Your task to perform on an android device: open wifi settings Image 0: 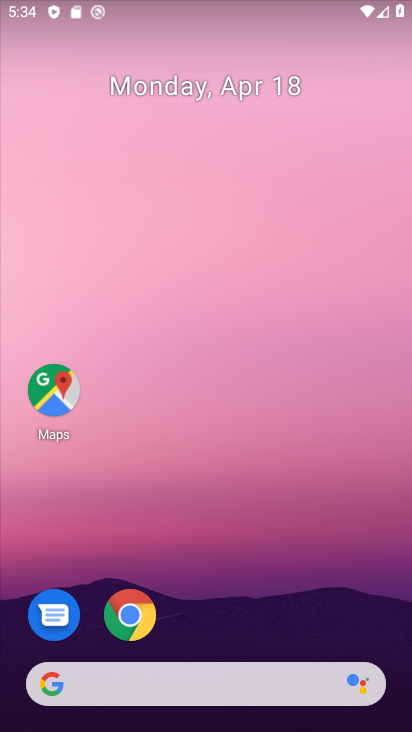
Step 0: drag from (182, 12) to (208, 664)
Your task to perform on an android device: open wifi settings Image 1: 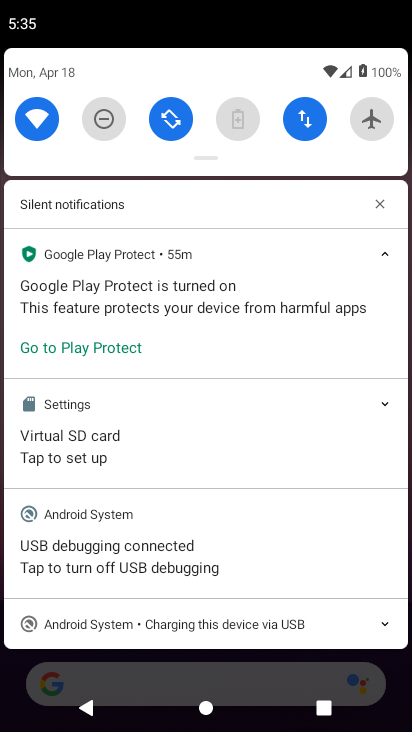
Step 1: click (21, 110)
Your task to perform on an android device: open wifi settings Image 2: 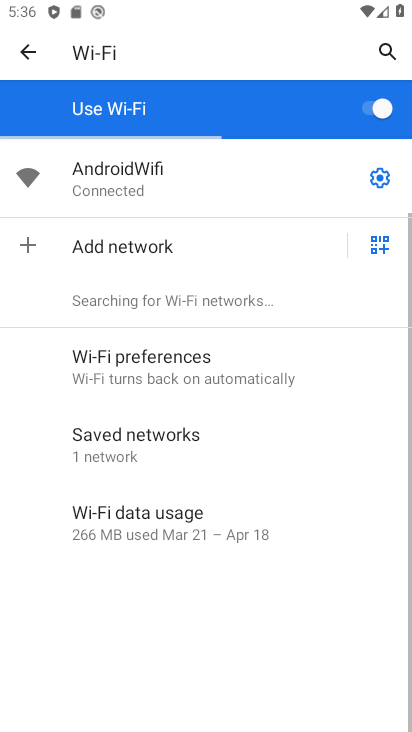
Step 2: task complete